Your task to perform on an android device: Open Google Chrome Image 0: 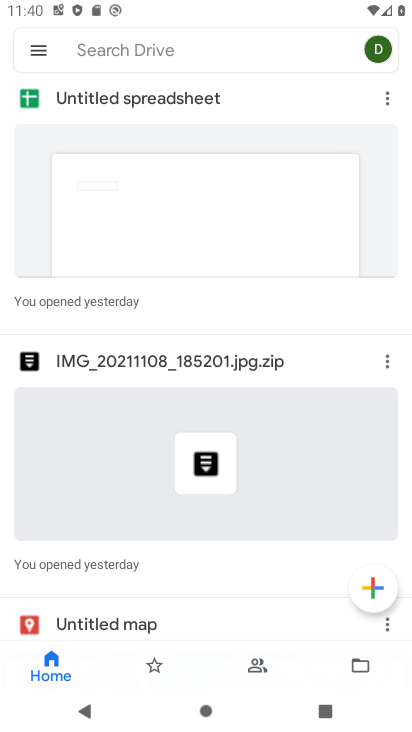
Step 0: press home button
Your task to perform on an android device: Open Google Chrome Image 1: 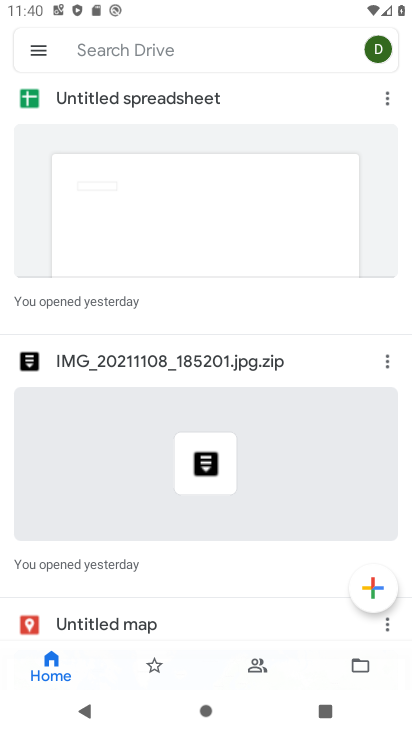
Step 1: press home button
Your task to perform on an android device: Open Google Chrome Image 2: 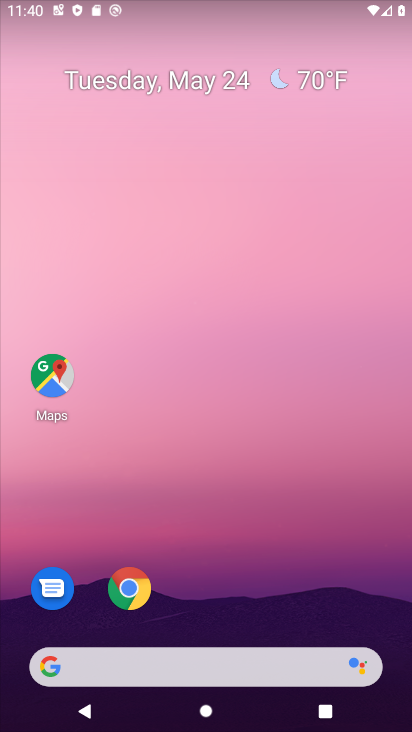
Step 2: click (124, 584)
Your task to perform on an android device: Open Google Chrome Image 3: 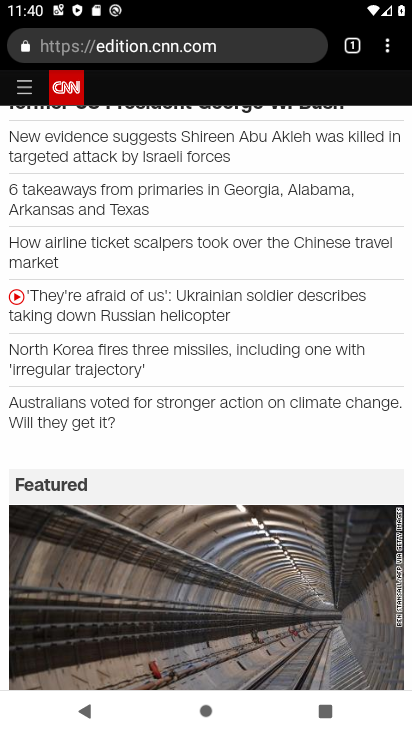
Step 3: click (350, 42)
Your task to perform on an android device: Open Google Chrome Image 4: 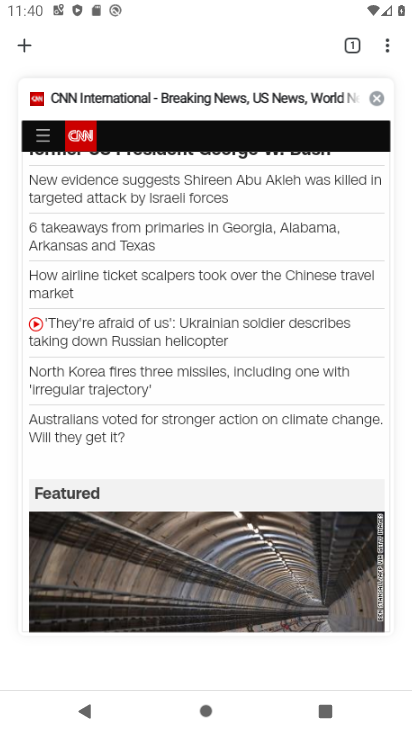
Step 4: click (374, 94)
Your task to perform on an android device: Open Google Chrome Image 5: 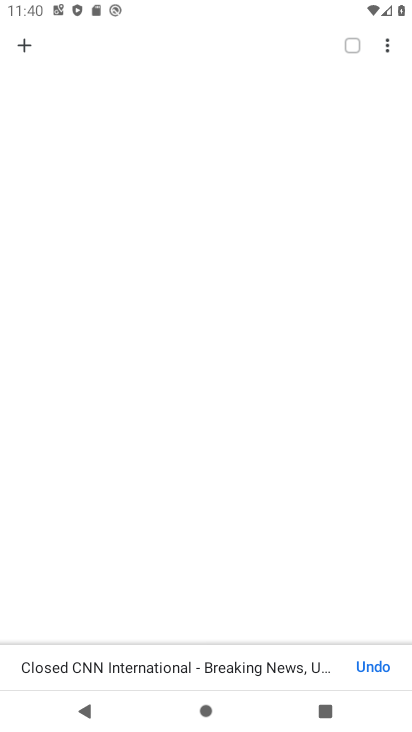
Step 5: click (28, 41)
Your task to perform on an android device: Open Google Chrome Image 6: 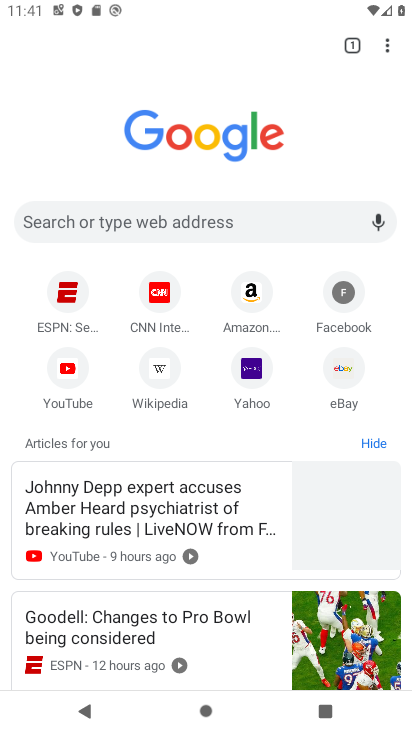
Step 6: task complete